Your task to perform on an android device: Open sound settings Image 0: 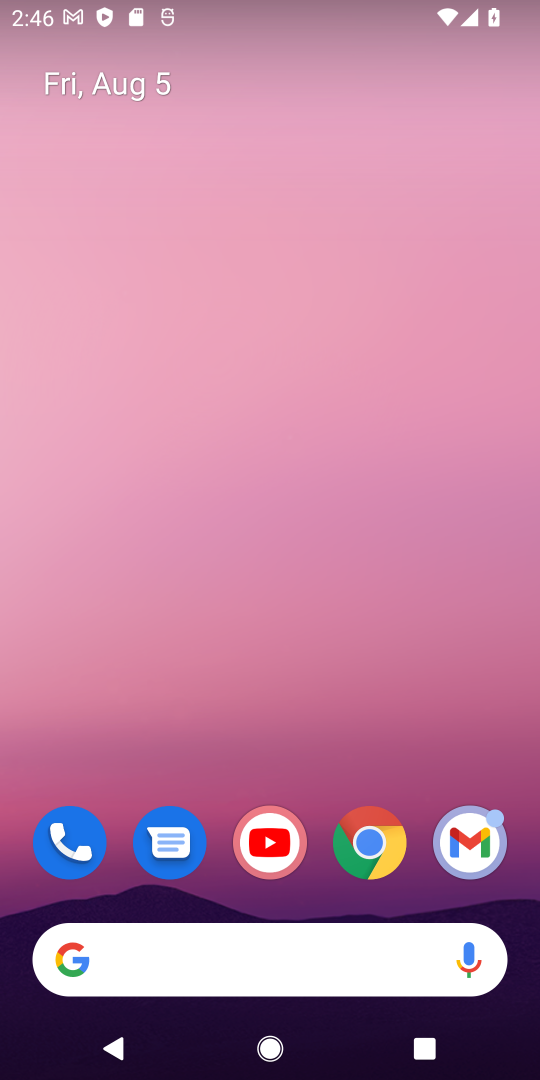
Step 0: drag from (351, 722) to (378, 15)
Your task to perform on an android device: Open sound settings Image 1: 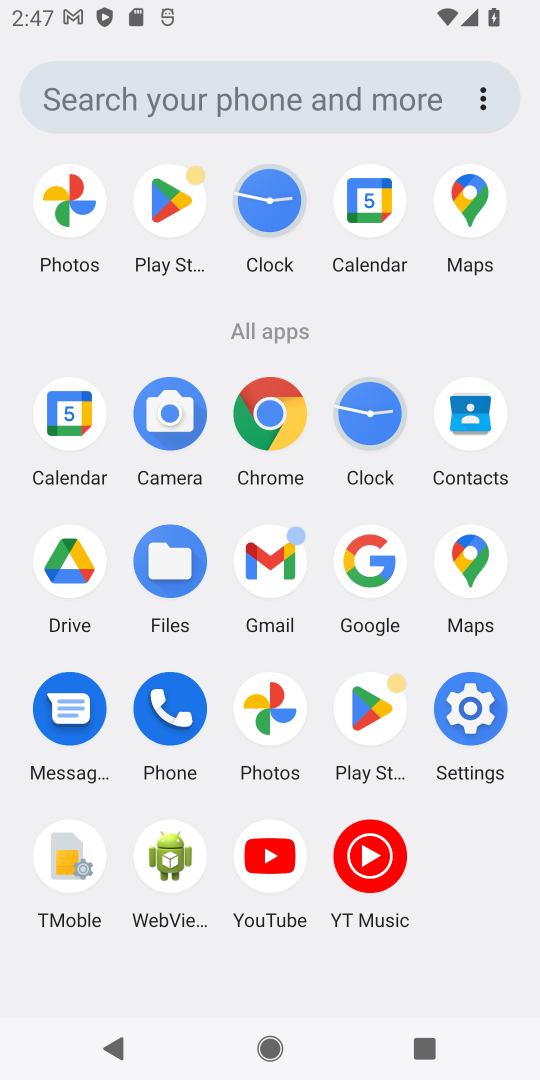
Step 1: click (480, 701)
Your task to perform on an android device: Open sound settings Image 2: 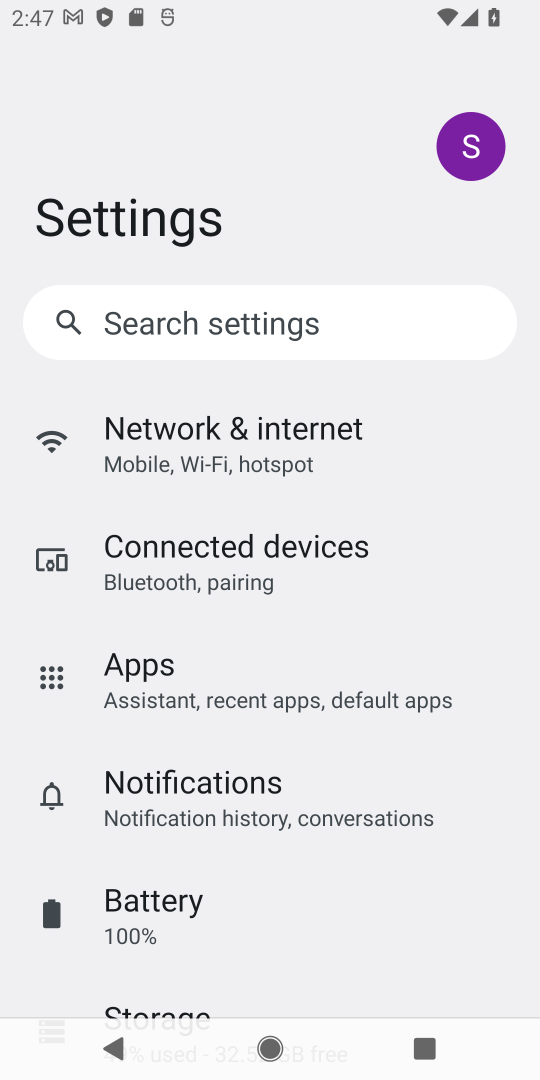
Step 2: drag from (327, 874) to (332, 329)
Your task to perform on an android device: Open sound settings Image 3: 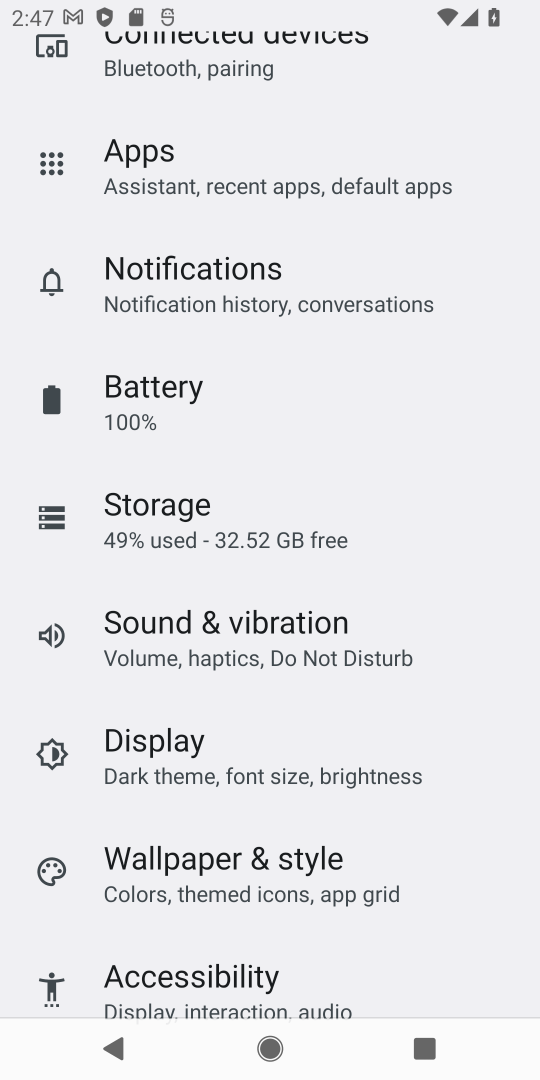
Step 3: click (276, 645)
Your task to perform on an android device: Open sound settings Image 4: 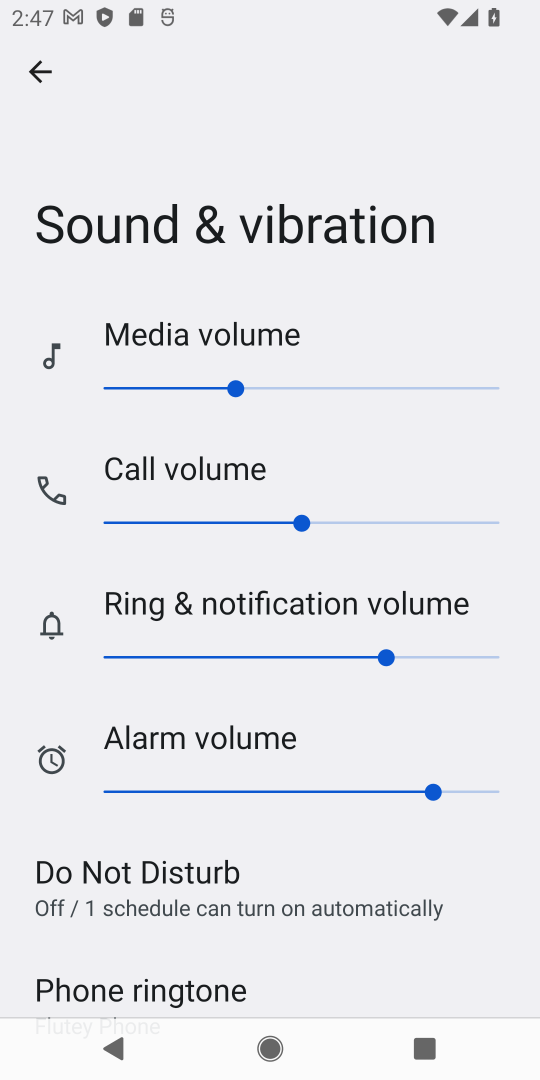
Step 4: task complete